Your task to perform on an android device: Open Youtube and go to "Your channel" Image 0: 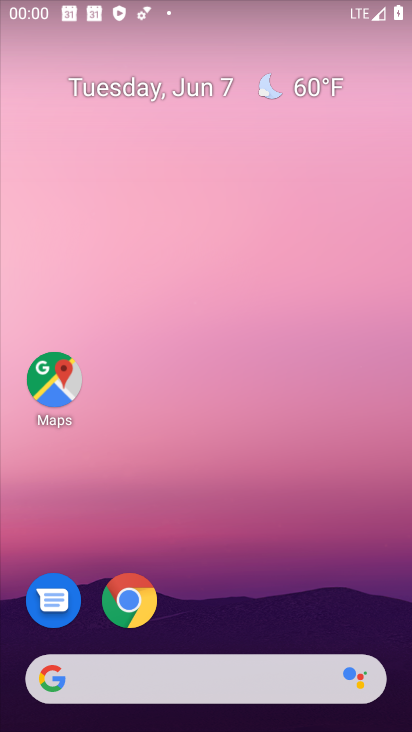
Step 0: drag from (246, 722) to (246, 73)
Your task to perform on an android device: Open Youtube and go to "Your channel" Image 1: 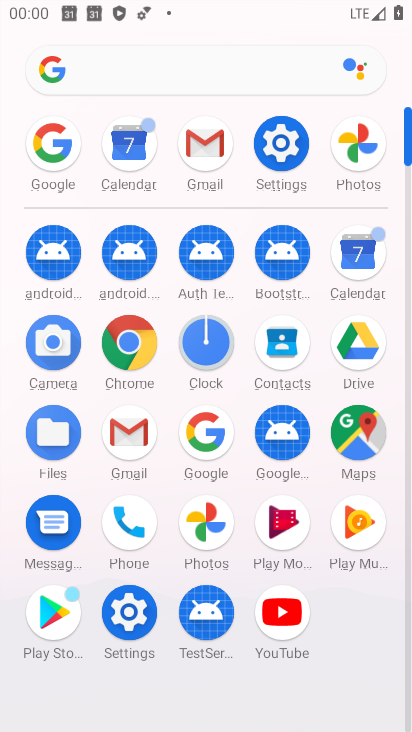
Step 1: click (287, 608)
Your task to perform on an android device: Open Youtube and go to "Your channel" Image 2: 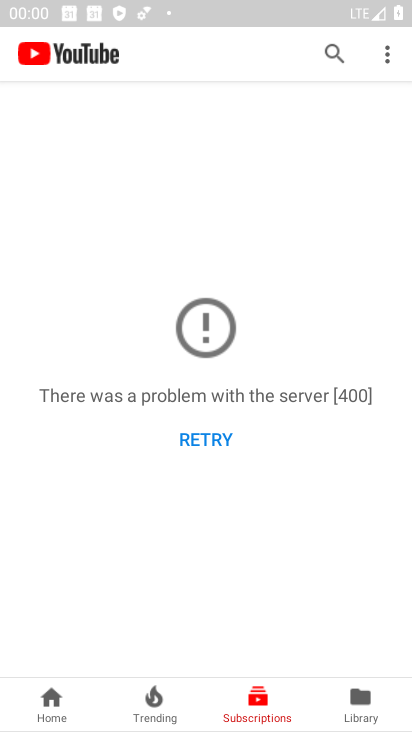
Step 2: task complete